Your task to perform on an android device: turn off location history Image 0: 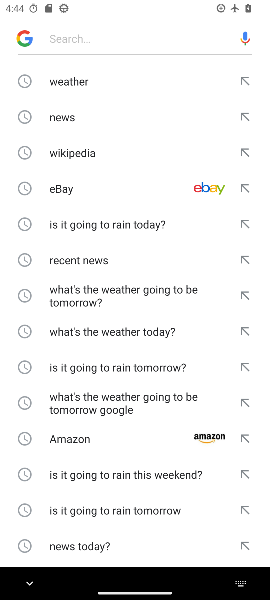
Step 0: press back button
Your task to perform on an android device: turn off location history Image 1: 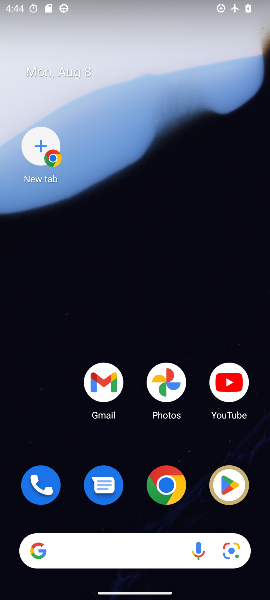
Step 1: drag from (187, 541) to (131, 165)
Your task to perform on an android device: turn off location history Image 2: 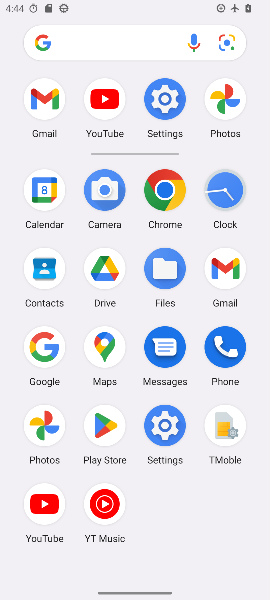
Step 2: click (161, 421)
Your task to perform on an android device: turn off location history Image 3: 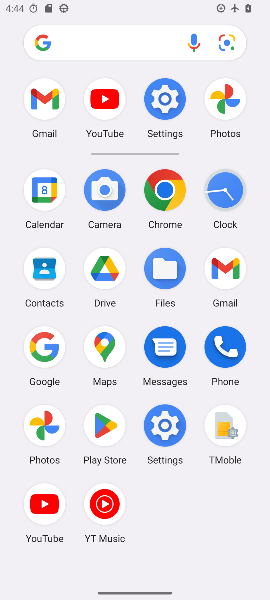
Step 3: click (161, 421)
Your task to perform on an android device: turn off location history Image 4: 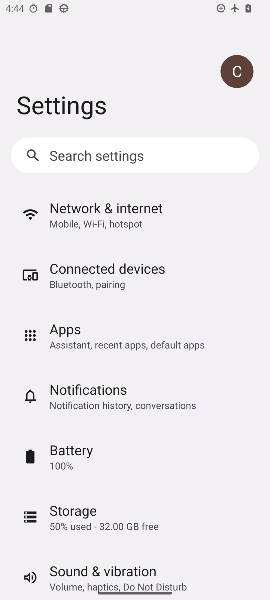
Step 4: click (161, 422)
Your task to perform on an android device: turn off location history Image 5: 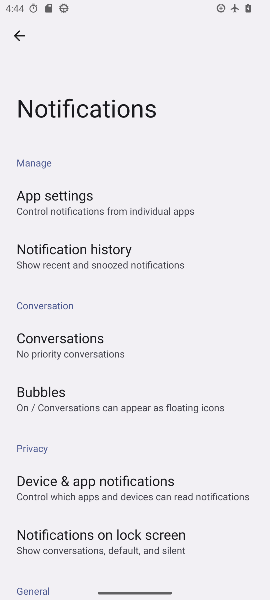
Step 5: click (20, 36)
Your task to perform on an android device: turn off location history Image 6: 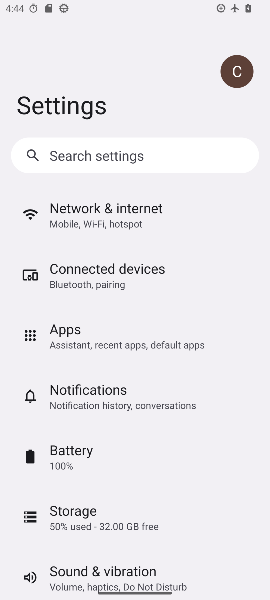
Step 6: drag from (75, 547) to (103, 273)
Your task to perform on an android device: turn off location history Image 7: 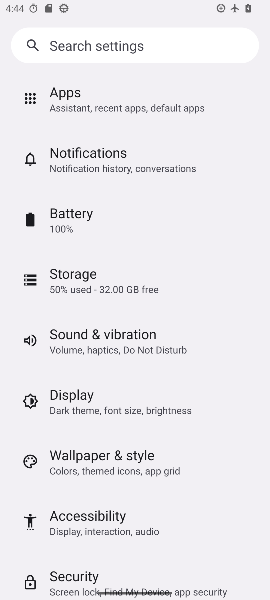
Step 7: drag from (129, 377) to (129, 309)
Your task to perform on an android device: turn off location history Image 8: 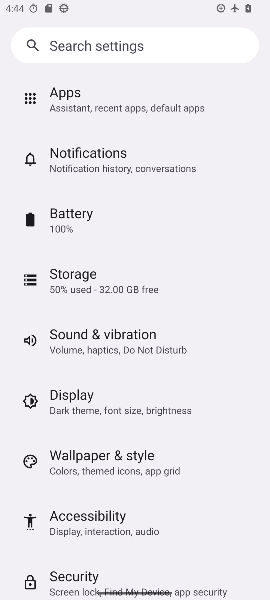
Step 8: drag from (123, 430) to (96, 207)
Your task to perform on an android device: turn off location history Image 9: 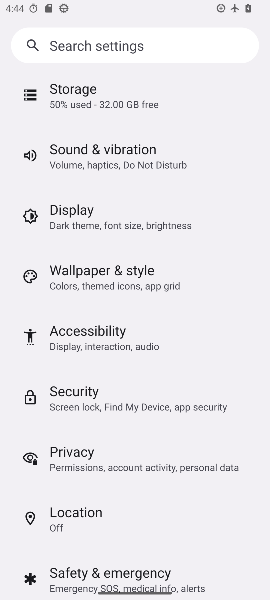
Step 9: drag from (133, 404) to (128, 231)
Your task to perform on an android device: turn off location history Image 10: 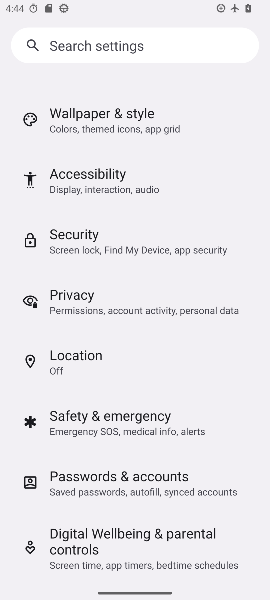
Step 10: click (80, 358)
Your task to perform on an android device: turn off location history Image 11: 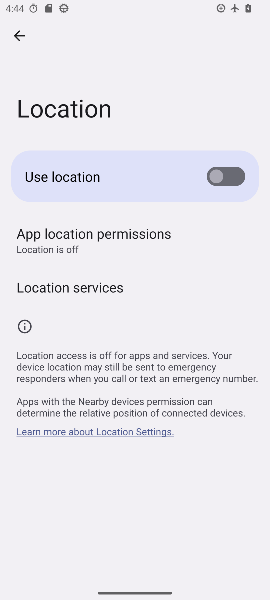
Step 11: task complete